Your task to perform on an android device: open a bookmark in the chrome app Image 0: 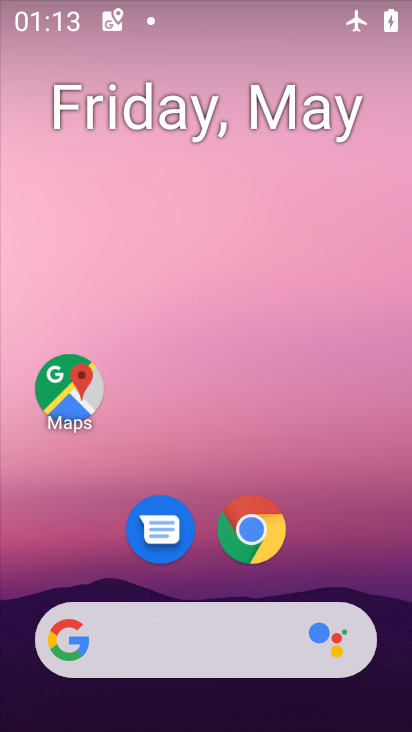
Step 0: drag from (312, 574) to (307, 272)
Your task to perform on an android device: open a bookmark in the chrome app Image 1: 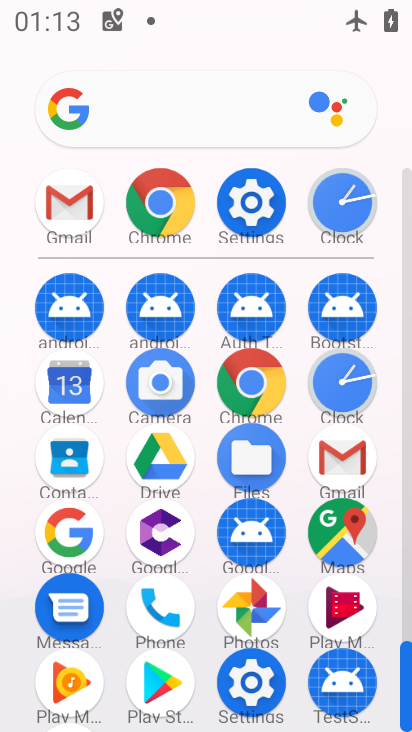
Step 1: click (165, 181)
Your task to perform on an android device: open a bookmark in the chrome app Image 2: 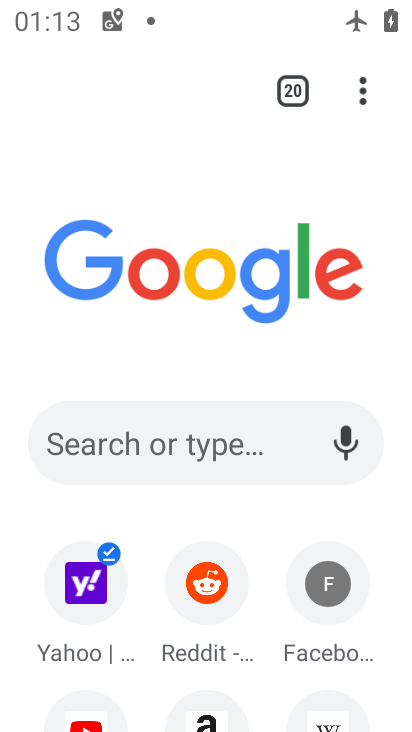
Step 2: click (350, 79)
Your task to perform on an android device: open a bookmark in the chrome app Image 3: 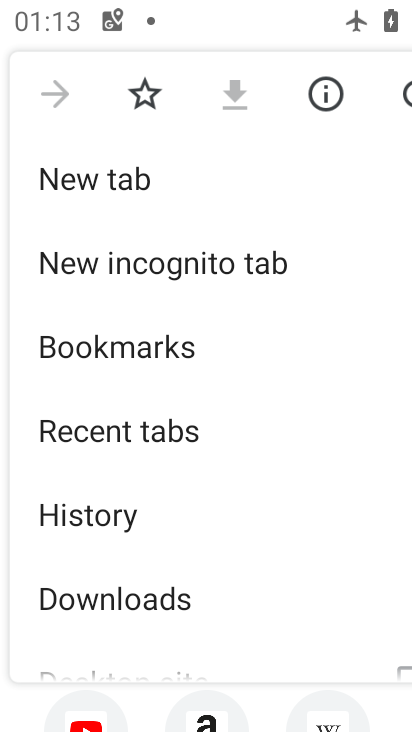
Step 3: click (181, 333)
Your task to perform on an android device: open a bookmark in the chrome app Image 4: 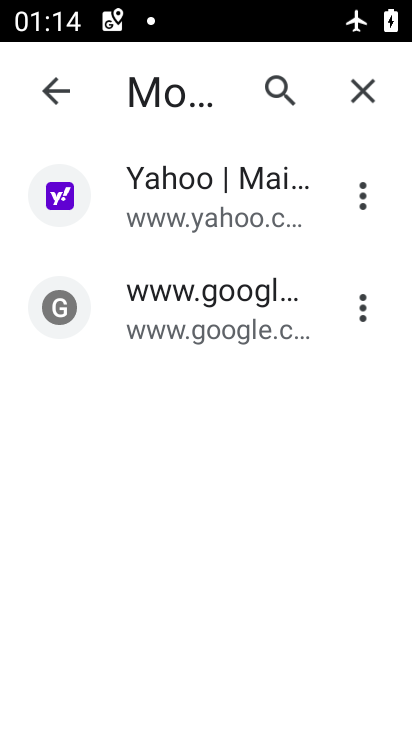
Step 4: task complete